Your task to perform on an android device: Open Reddit.com Image 0: 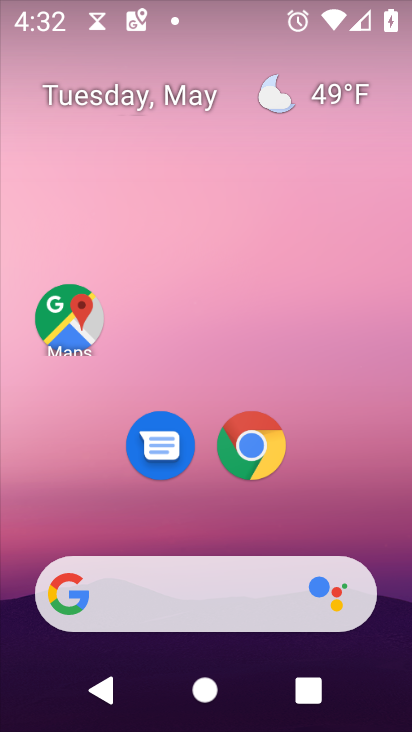
Step 0: drag from (339, 550) to (366, 10)
Your task to perform on an android device: Open Reddit.com Image 1: 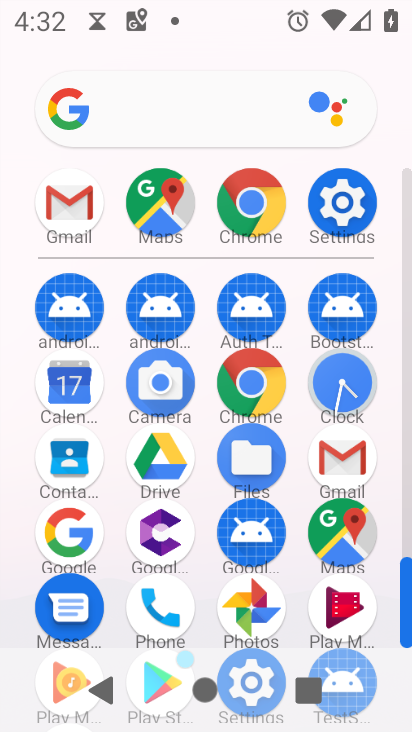
Step 1: click (256, 394)
Your task to perform on an android device: Open Reddit.com Image 2: 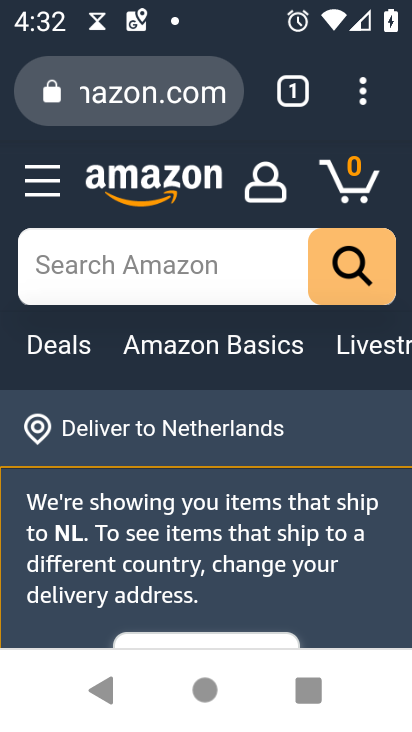
Step 2: click (129, 86)
Your task to perform on an android device: Open Reddit.com Image 3: 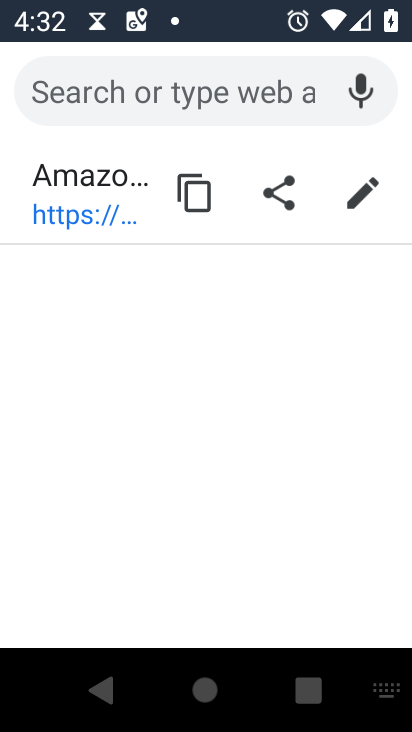
Step 3: type "reddit.com"
Your task to perform on an android device: Open Reddit.com Image 4: 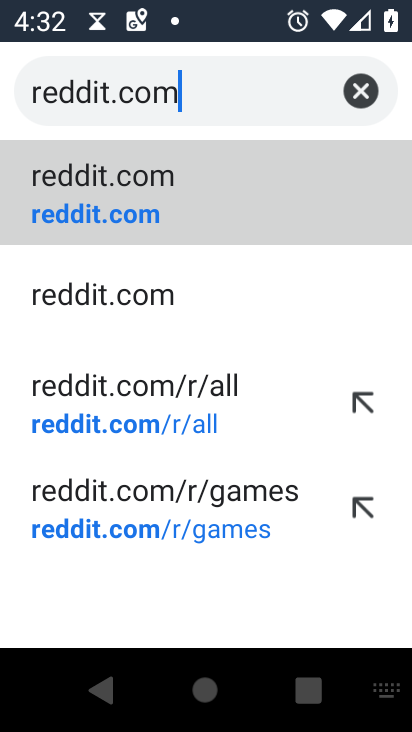
Step 4: click (159, 204)
Your task to perform on an android device: Open Reddit.com Image 5: 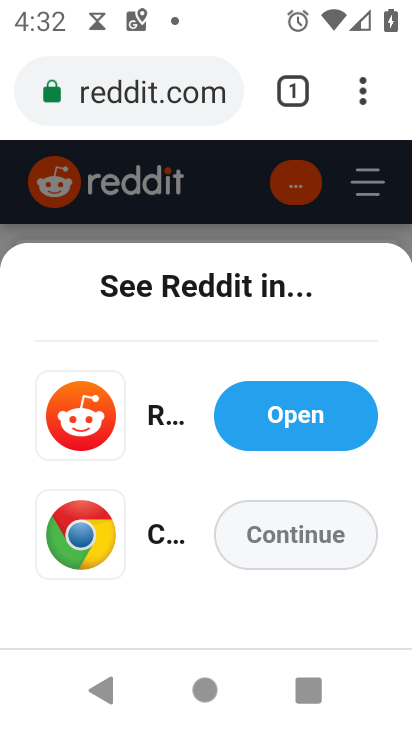
Step 5: task complete